Your task to perform on an android device: Go to Yahoo.com Image 0: 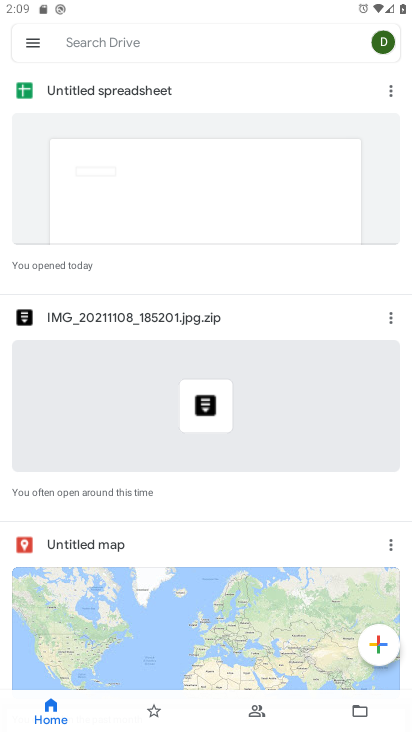
Step 0: press home button
Your task to perform on an android device: Go to Yahoo.com Image 1: 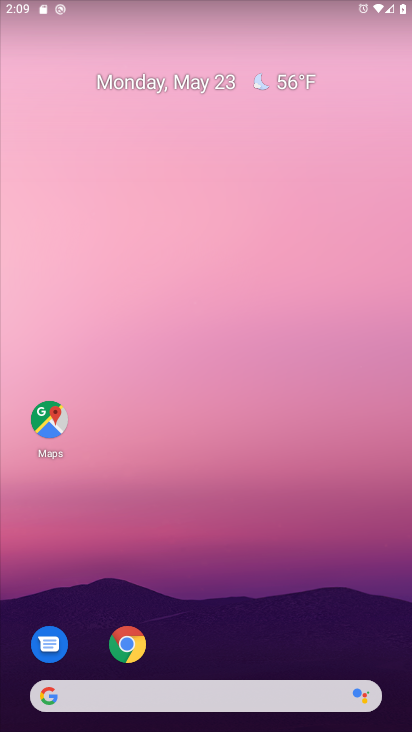
Step 1: click (132, 653)
Your task to perform on an android device: Go to Yahoo.com Image 2: 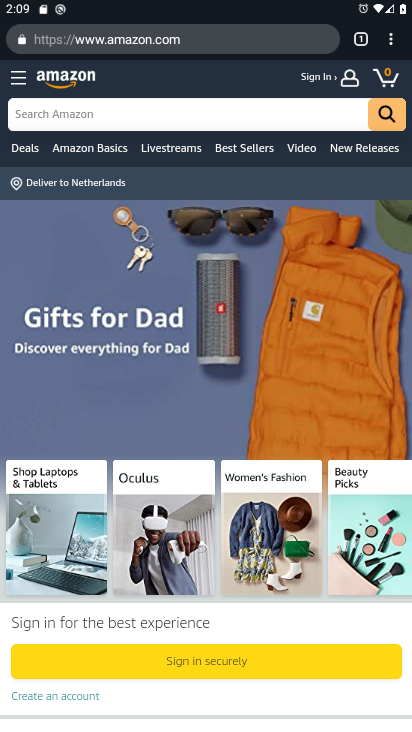
Step 2: press back button
Your task to perform on an android device: Go to Yahoo.com Image 3: 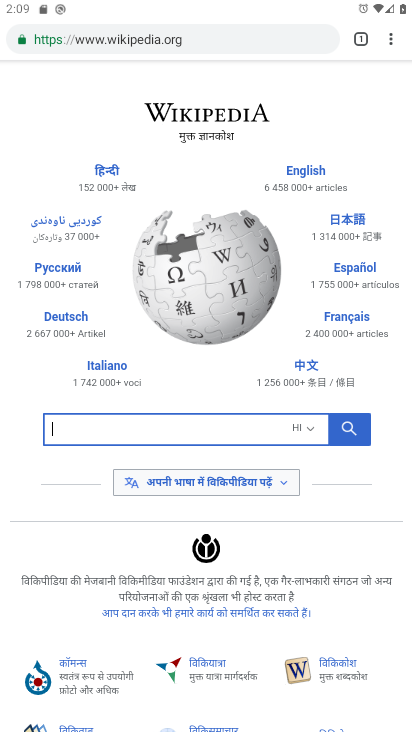
Step 3: press back button
Your task to perform on an android device: Go to Yahoo.com Image 4: 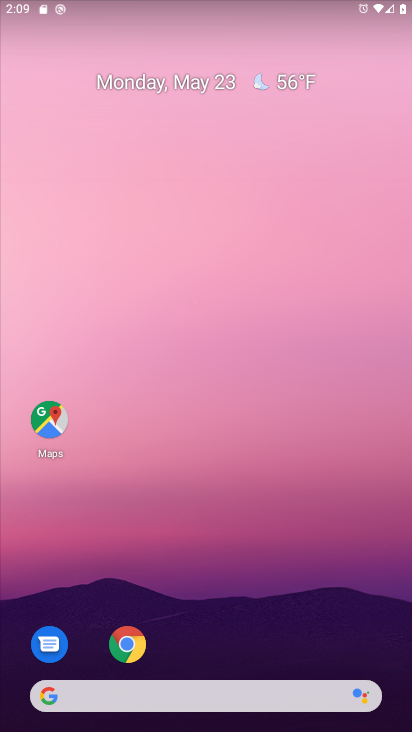
Step 4: click (126, 665)
Your task to perform on an android device: Go to Yahoo.com Image 5: 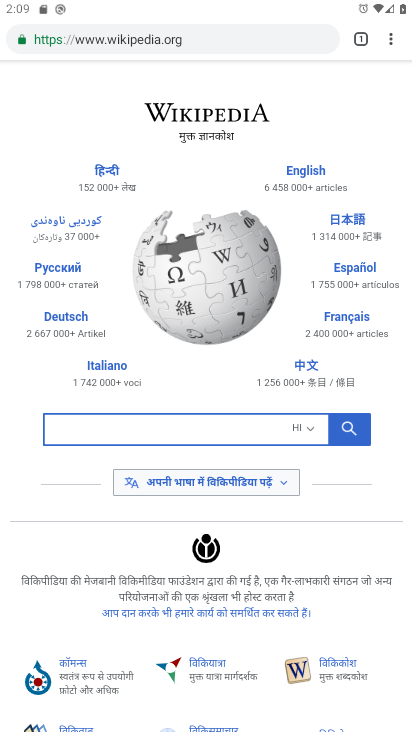
Step 5: click (158, 35)
Your task to perform on an android device: Go to Yahoo.com Image 6: 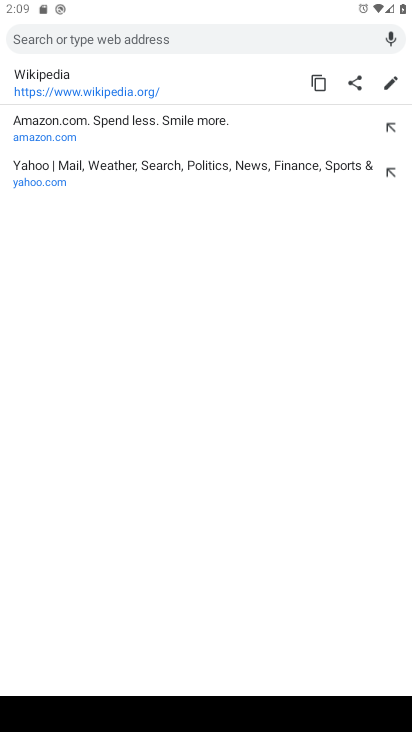
Step 6: click (82, 186)
Your task to perform on an android device: Go to Yahoo.com Image 7: 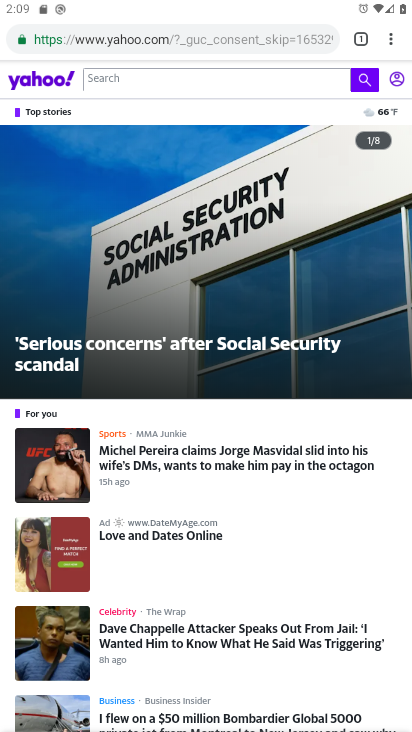
Step 7: task complete